Your task to perform on an android device: Open Chrome and go to the settings page Image 0: 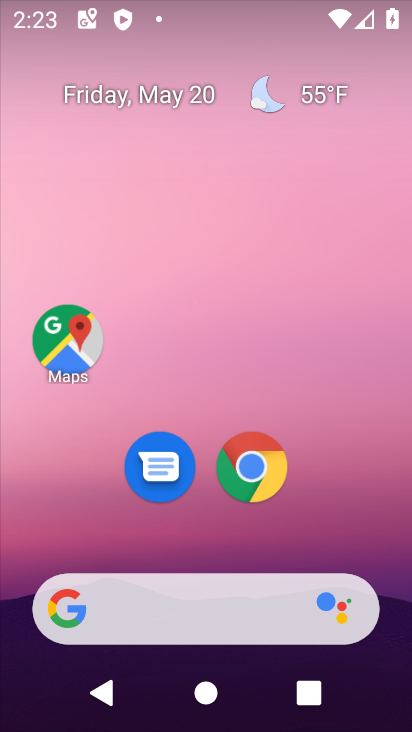
Step 0: click (248, 475)
Your task to perform on an android device: Open Chrome and go to the settings page Image 1: 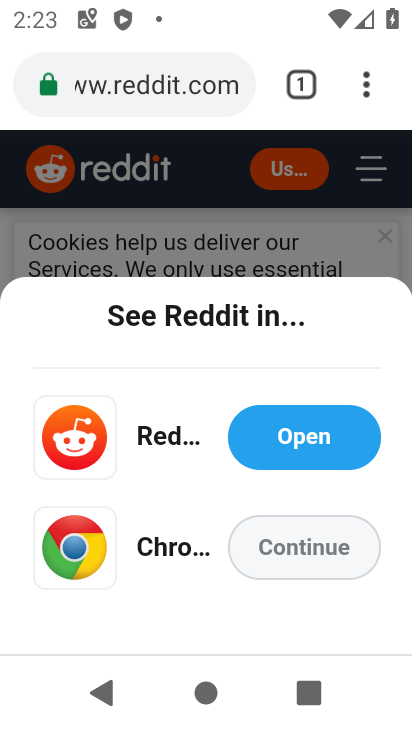
Step 1: click (367, 78)
Your task to perform on an android device: Open Chrome and go to the settings page Image 2: 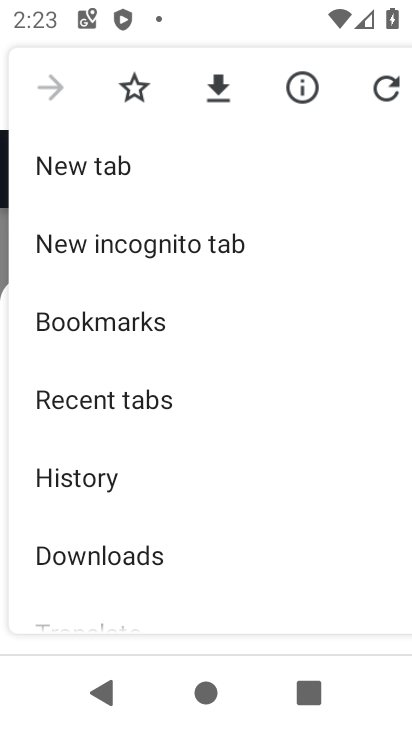
Step 2: drag from (139, 558) to (117, 268)
Your task to perform on an android device: Open Chrome and go to the settings page Image 3: 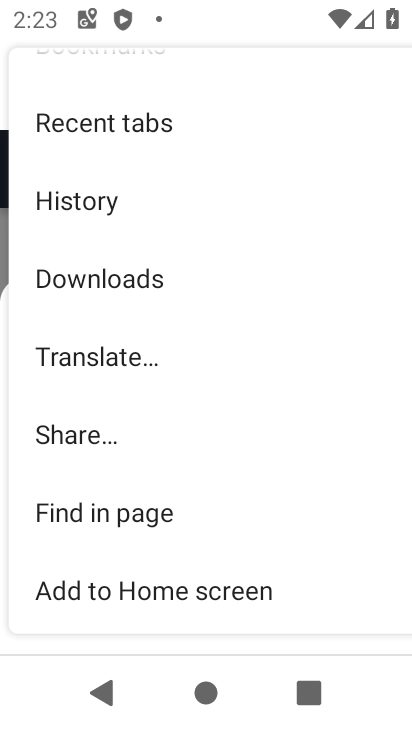
Step 3: drag from (150, 534) to (135, 259)
Your task to perform on an android device: Open Chrome and go to the settings page Image 4: 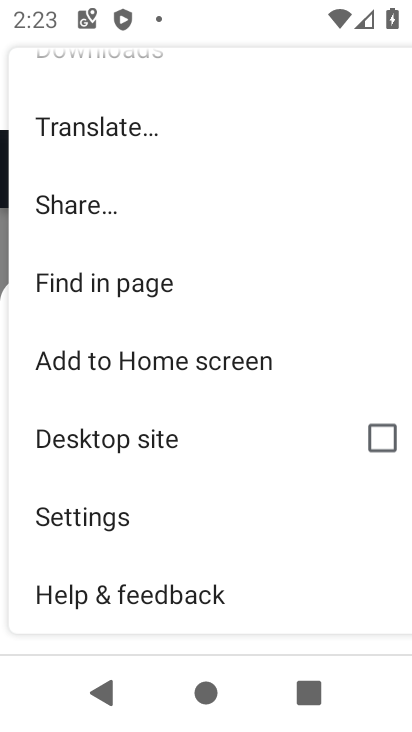
Step 4: click (149, 513)
Your task to perform on an android device: Open Chrome and go to the settings page Image 5: 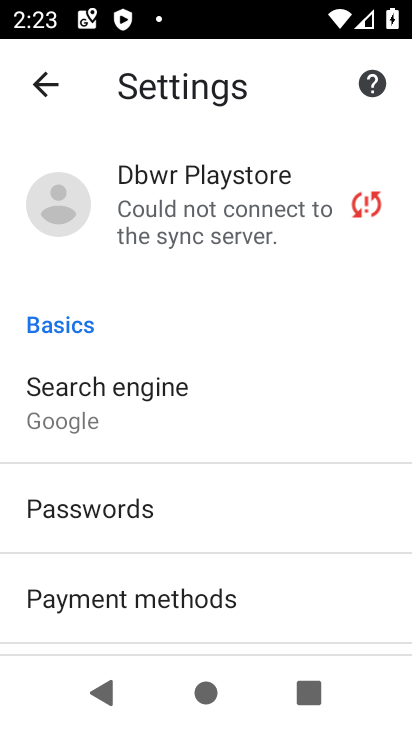
Step 5: task complete